Your task to perform on an android device: Show me recent news Image 0: 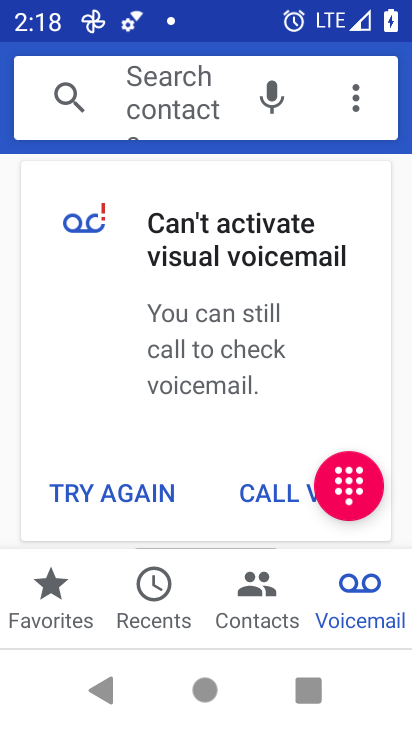
Step 0: press home button
Your task to perform on an android device: Show me recent news Image 1: 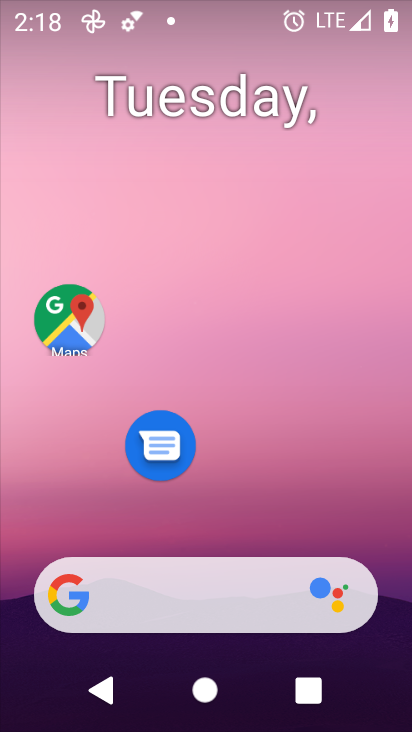
Step 1: task complete